Your task to perform on an android device: Do I have any events tomorrow? Image 0: 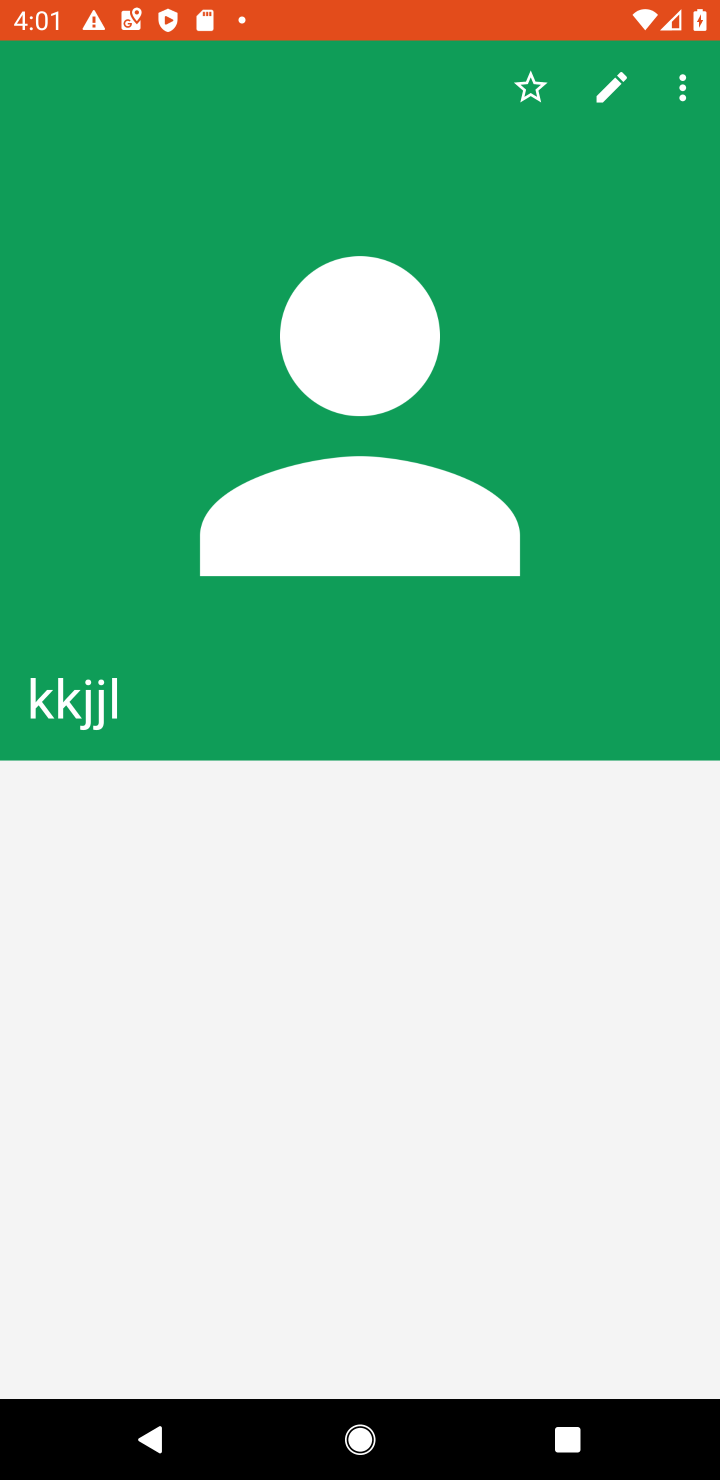
Step 0: press home button
Your task to perform on an android device: Do I have any events tomorrow? Image 1: 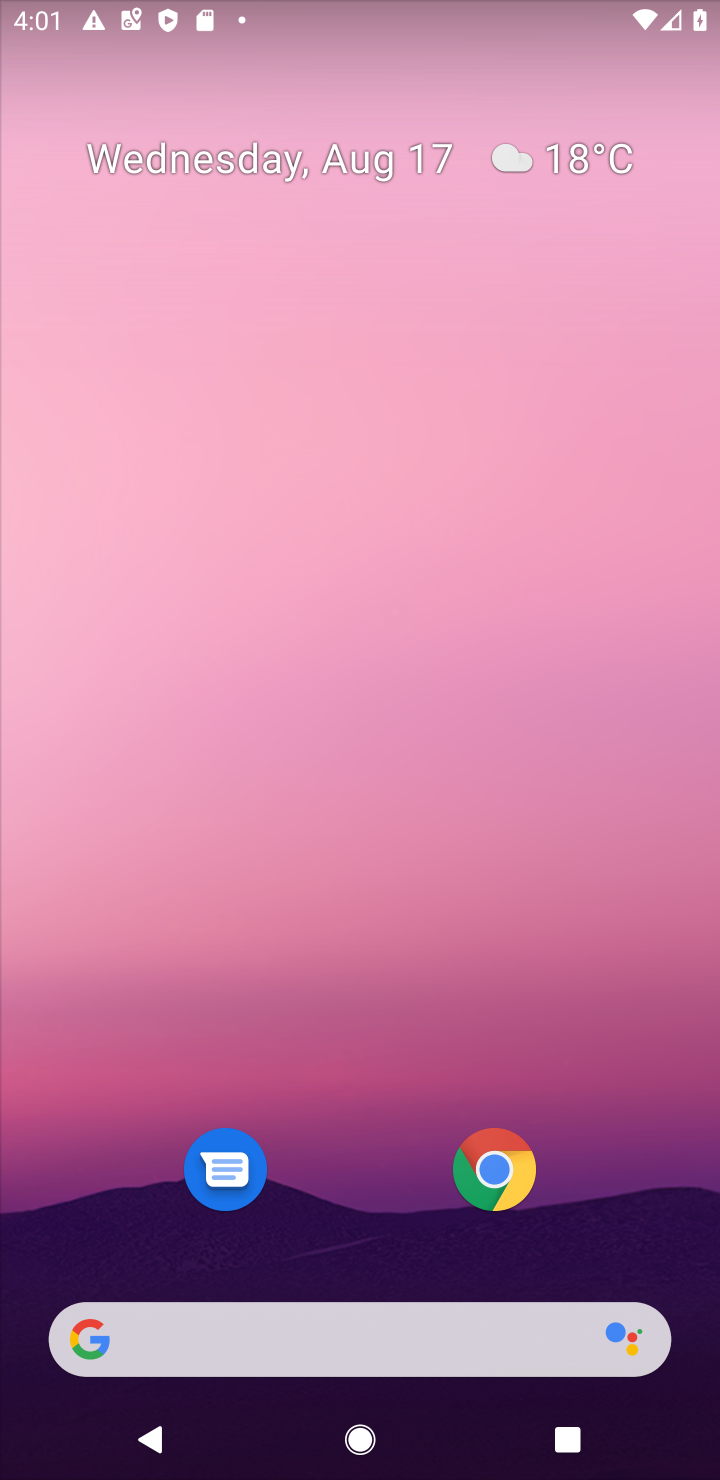
Step 1: drag from (411, 1234) to (536, 161)
Your task to perform on an android device: Do I have any events tomorrow? Image 2: 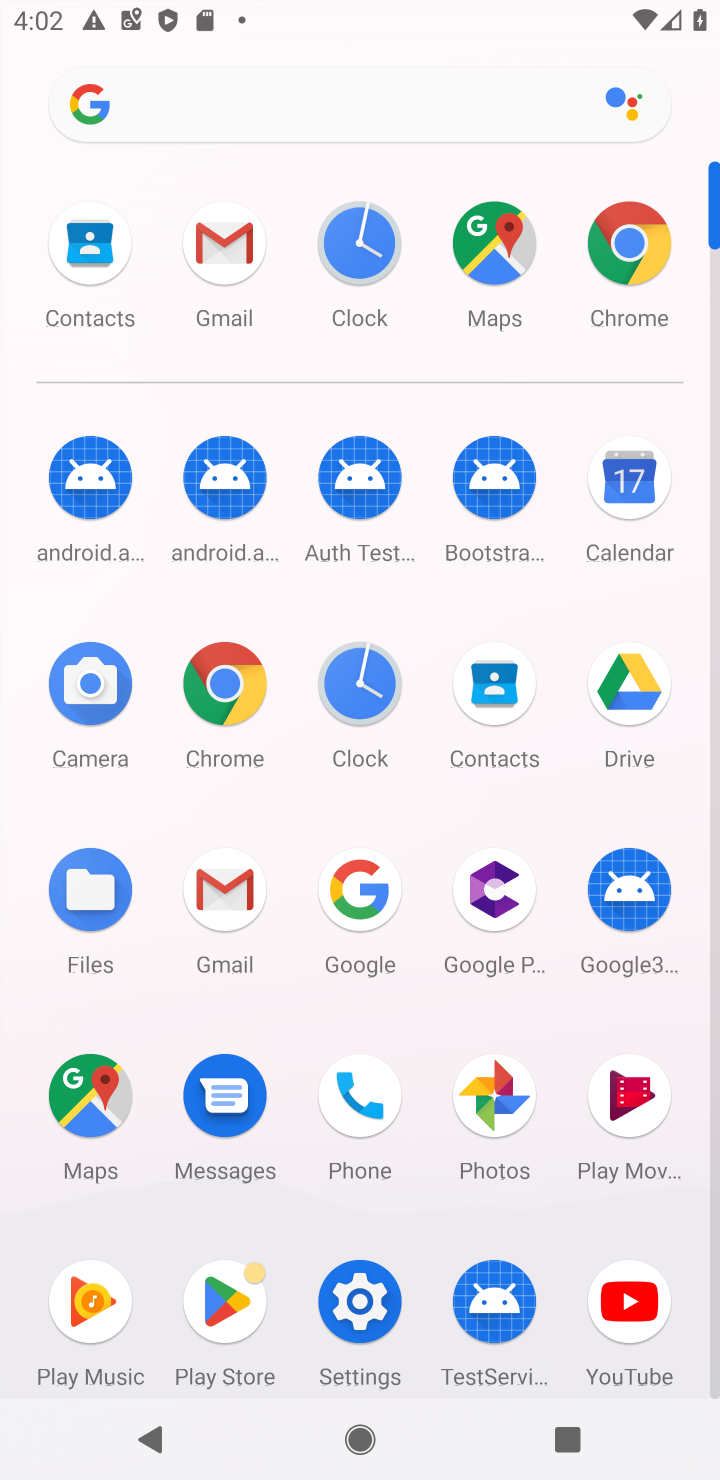
Step 2: click (636, 496)
Your task to perform on an android device: Do I have any events tomorrow? Image 3: 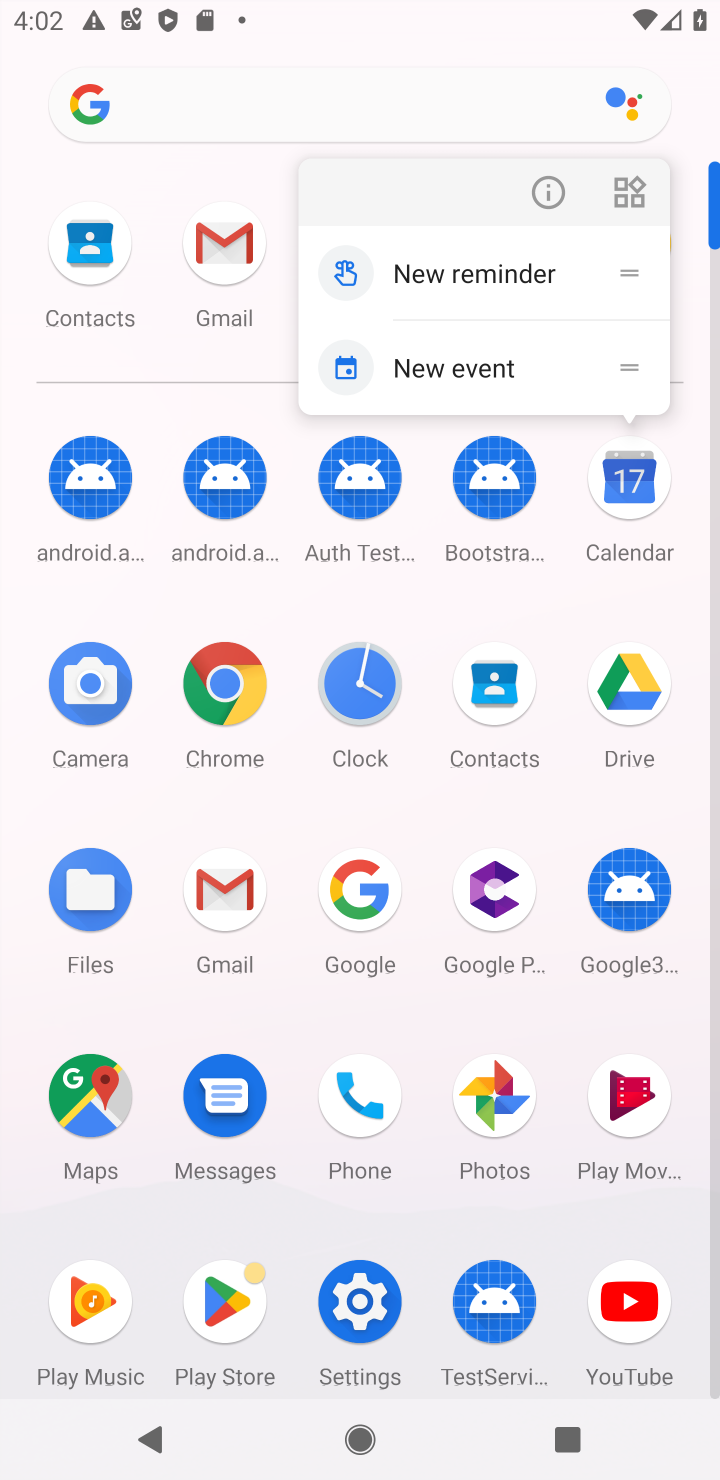
Step 3: click (630, 483)
Your task to perform on an android device: Do I have any events tomorrow? Image 4: 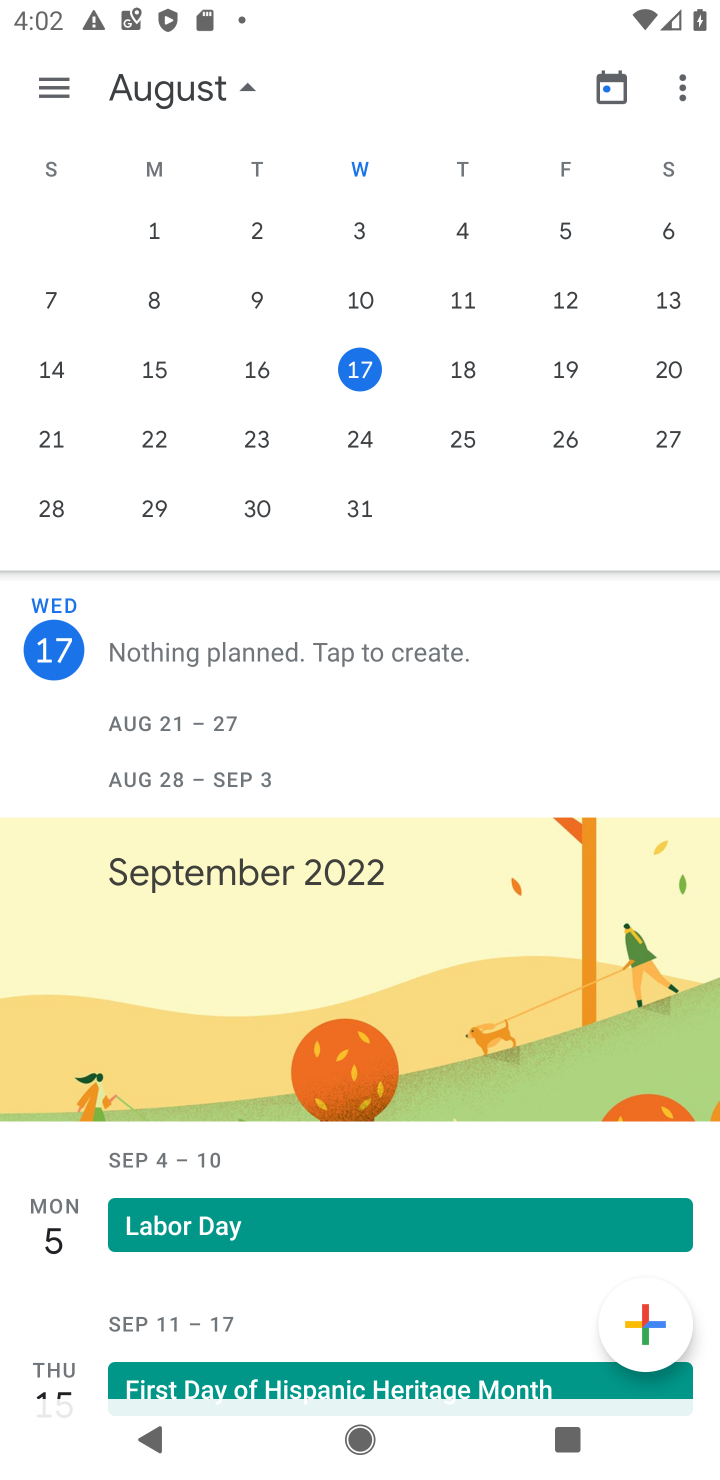
Step 4: click (475, 360)
Your task to perform on an android device: Do I have any events tomorrow? Image 5: 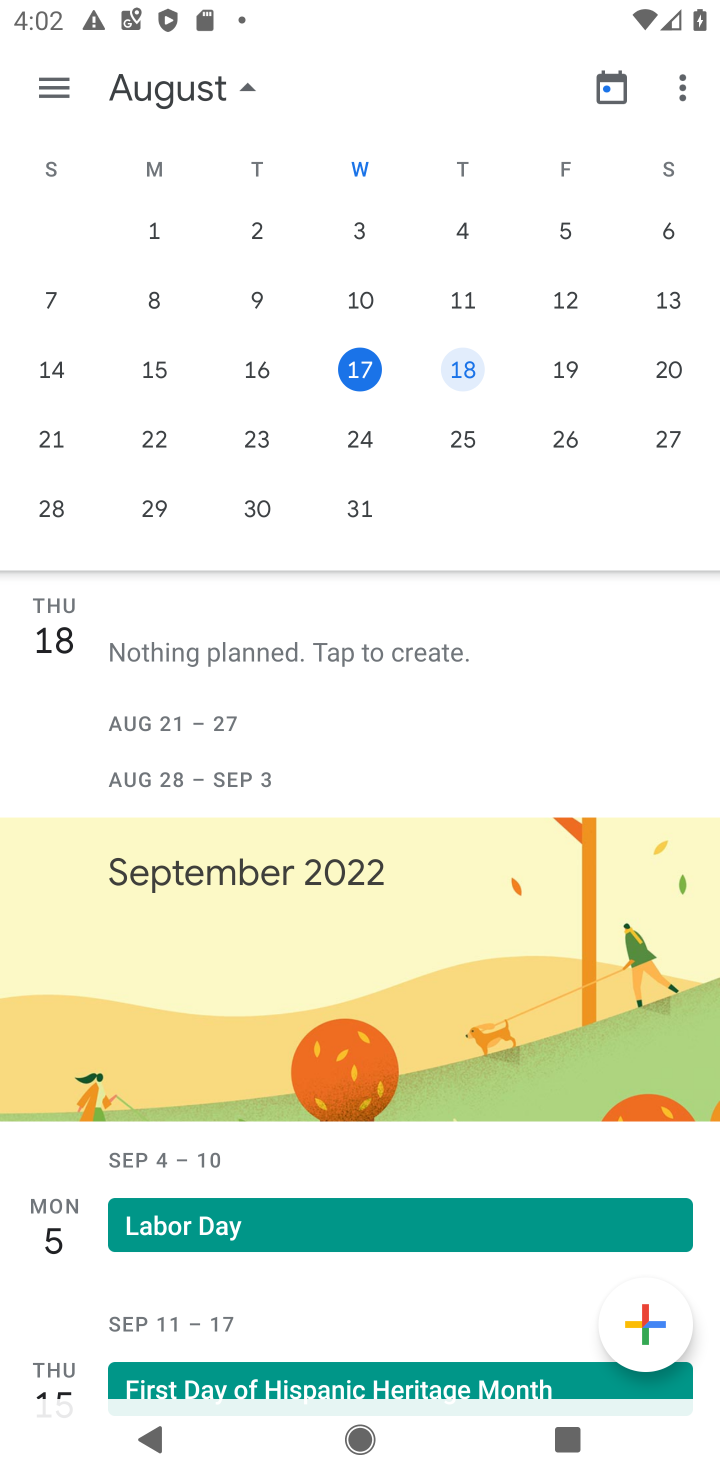
Step 5: task complete